Your task to perform on an android device: Go to CNN.com Image 0: 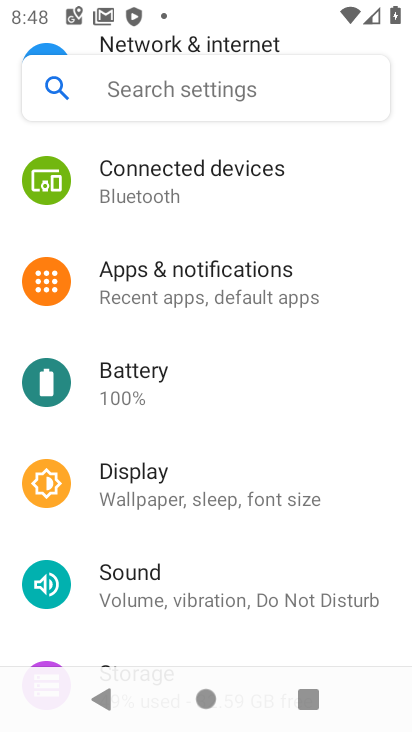
Step 0: press home button
Your task to perform on an android device: Go to CNN.com Image 1: 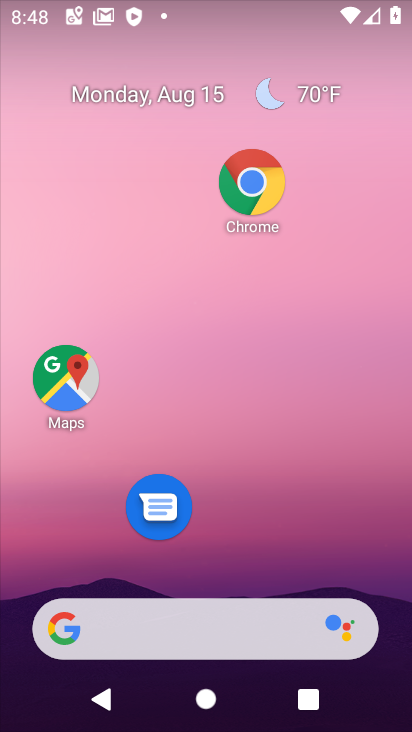
Step 1: click (235, 586)
Your task to perform on an android device: Go to CNN.com Image 2: 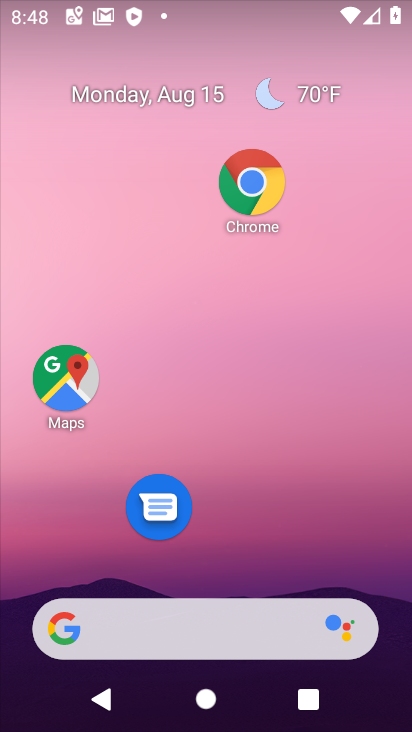
Step 2: click (255, 209)
Your task to perform on an android device: Go to CNN.com Image 3: 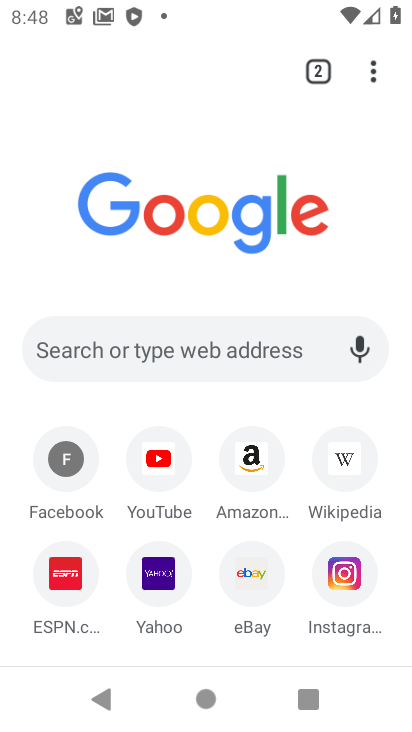
Step 3: click (174, 350)
Your task to perform on an android device: Go to CNN.com Image 4: 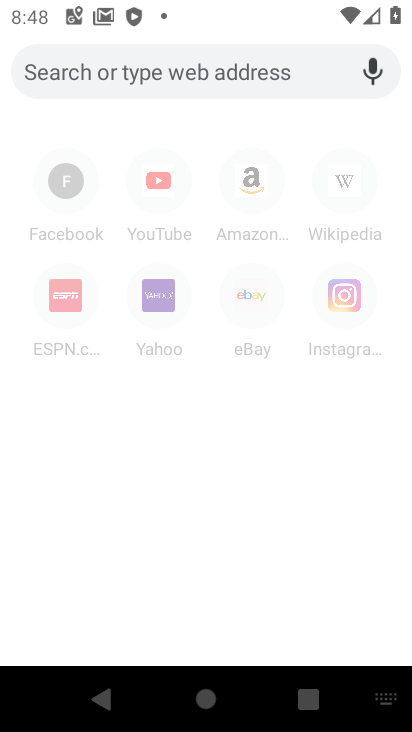
Step 4: type "cnn.com"
Your task to perform on an android device: Go to CNN.com Image 5: 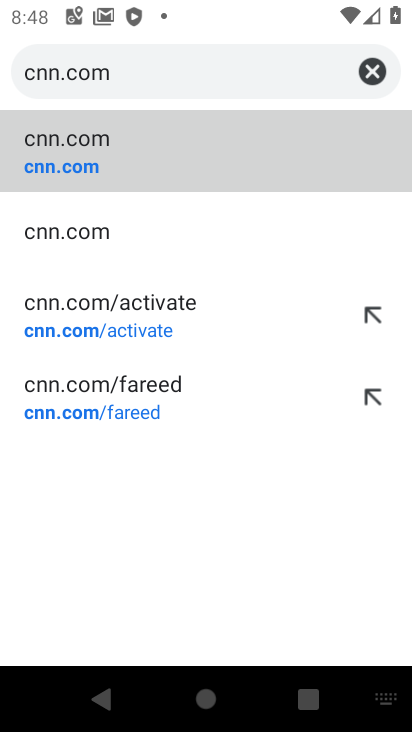
Step 5: click (202, 133)
Your task to perform on an android device: Go to CNN.com Image 6: 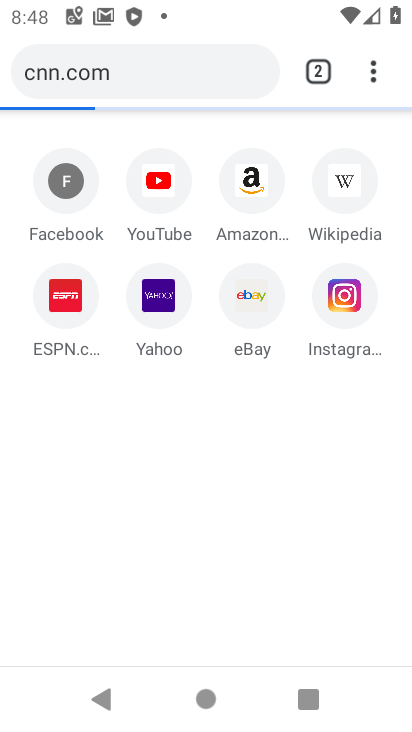
Step 6: task complete